Your task to perform on an android device: set an alarm Image 0: 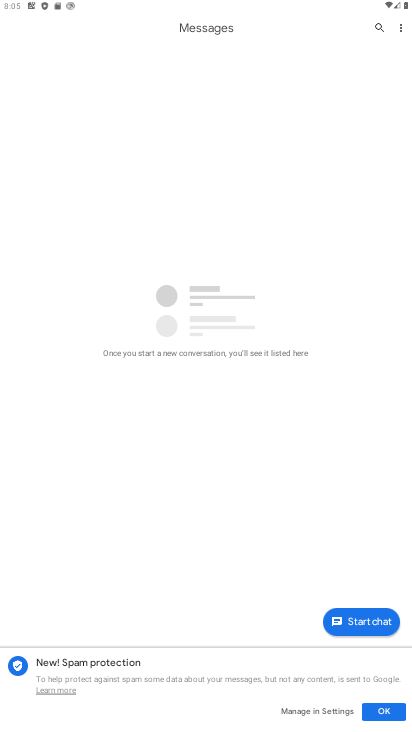
Step 0: press home button
Your task to perform on an android device: set an alarm Image 1: 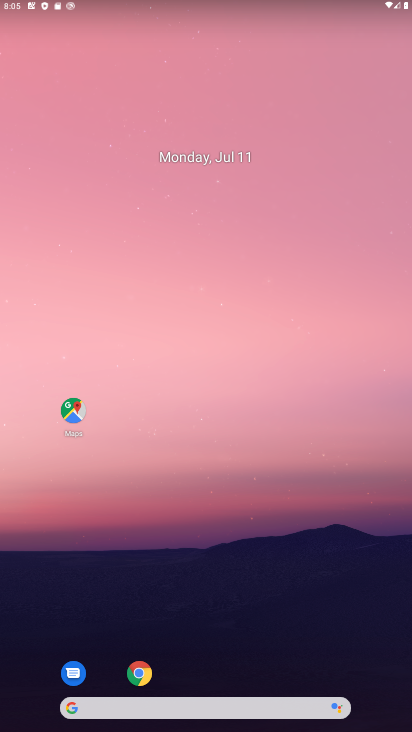
Step 1: drag from (196, 666) to (192, 151)
Your task to perform on an android device: set an alarm Image 2: 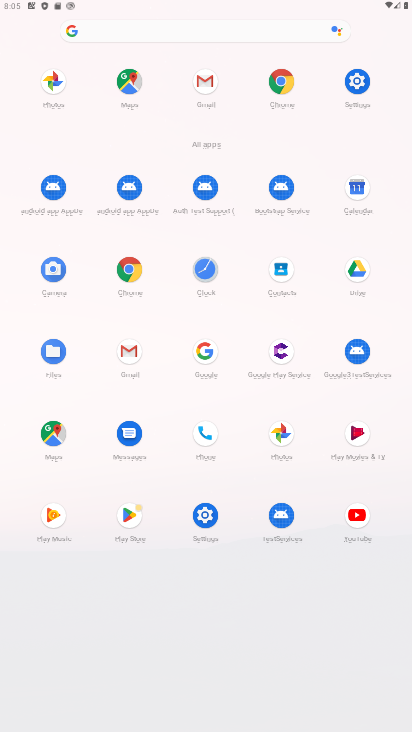
Step 2: click (201, 268)
Your task to perform on an android device: set an alarm Image 3: 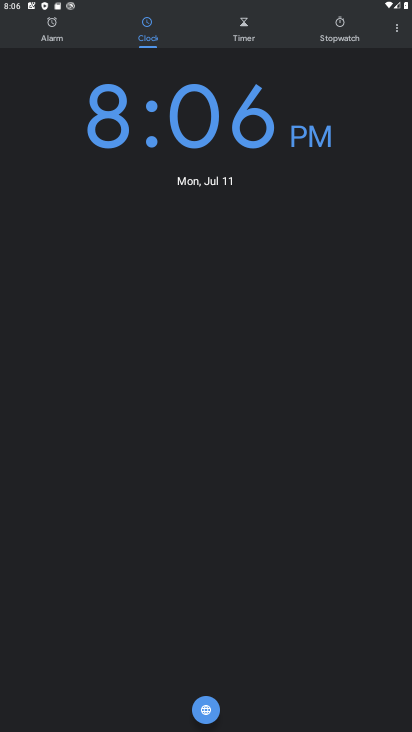
Step 3: click (51, 36)
Your task to perform on an android device: set an alarm Image 4: 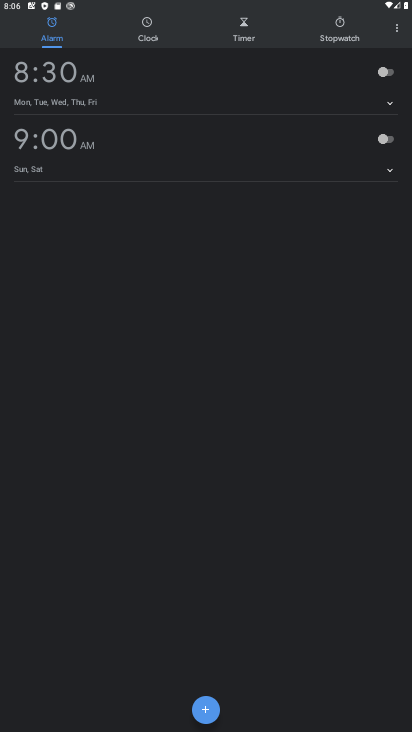
Step 4: click (385, 71)
Your task to perform on an android device: set an alarm Image 5: 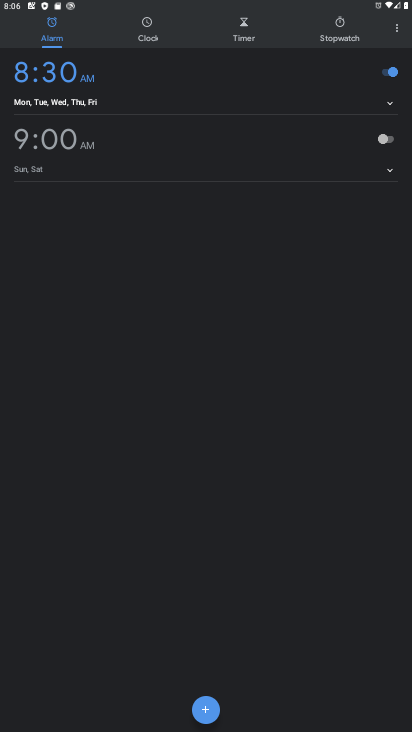
Step 5: task complete